Your task to perform on an android device: turn off translation in the chrome app Image 0: 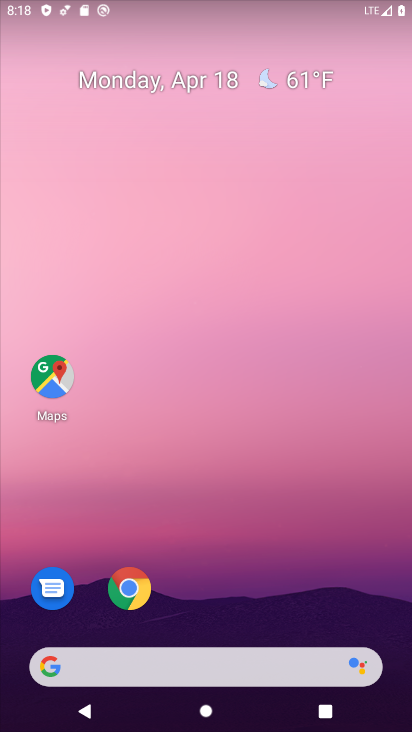
Step 0: click (130, 585)
Your task to perform on an android device: turn off translation in the chrome app Image 1: 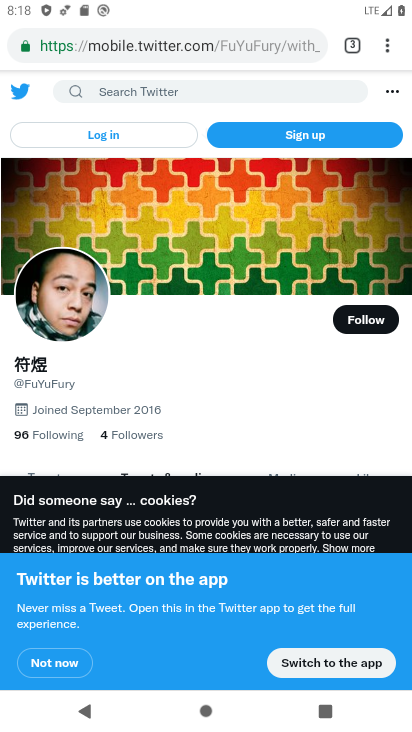
Step 1: click (386, 42)
Your task to perform on an android device: turn off translation in the chrome app Image 2: 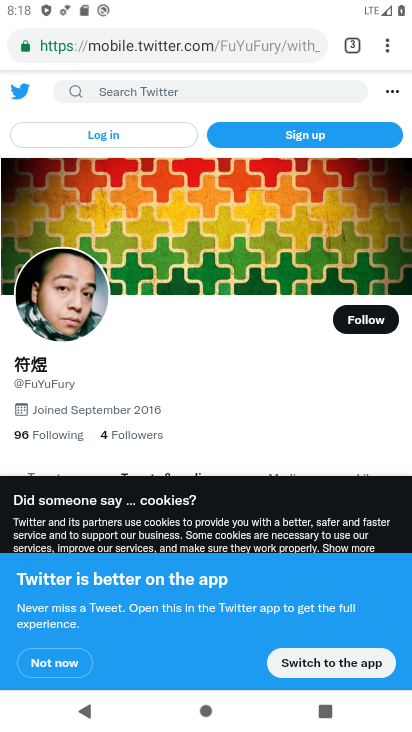
Step 2: click (390, 50)
Your task to perform on an android device: turn off translation in the chrome app Image 3: 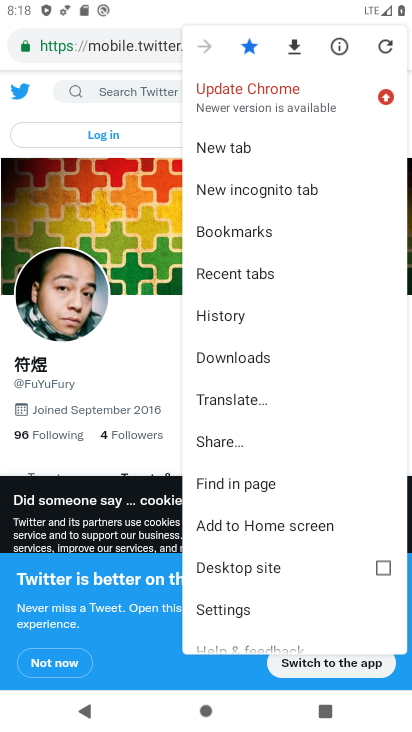
Step 3: click (223, 604)
Your task to perform on an android device: turn off translation in the chrome app Image 4: 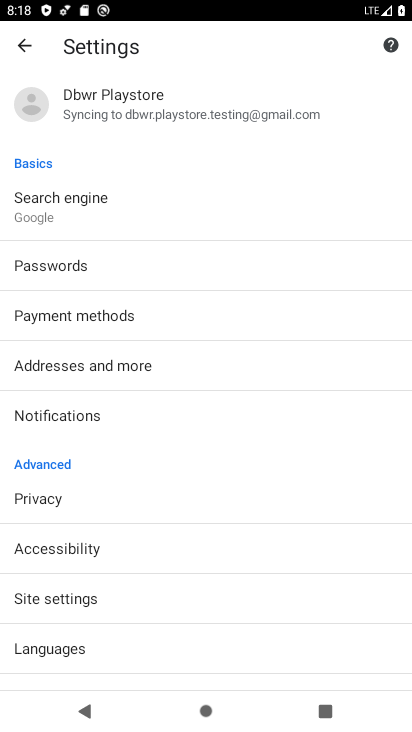
Step 4: drag from (223, 604) to (233, 309)
Your task to perform on an android device: turn off translation in the chrome app Image 5: 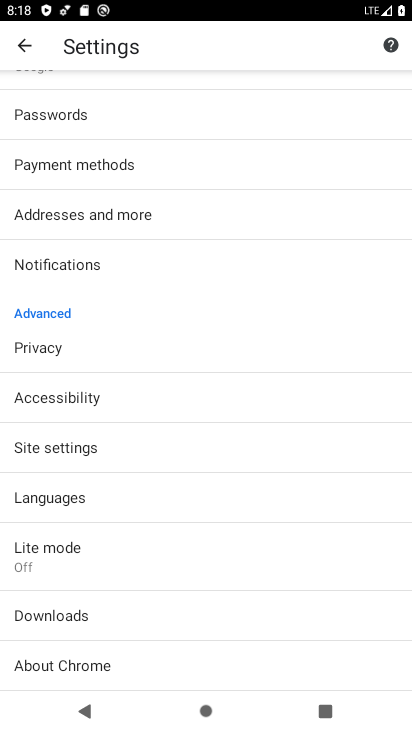
Step 5: click (47, 500)
Your task to perform on an android device: turn off translation in the chrome app Image 6: 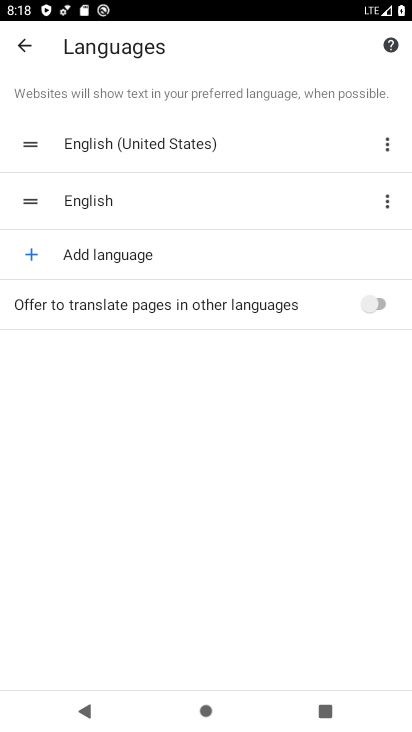
Step 6: task complete